Your task to perform on an android device: turn on sleep mode Image 0: 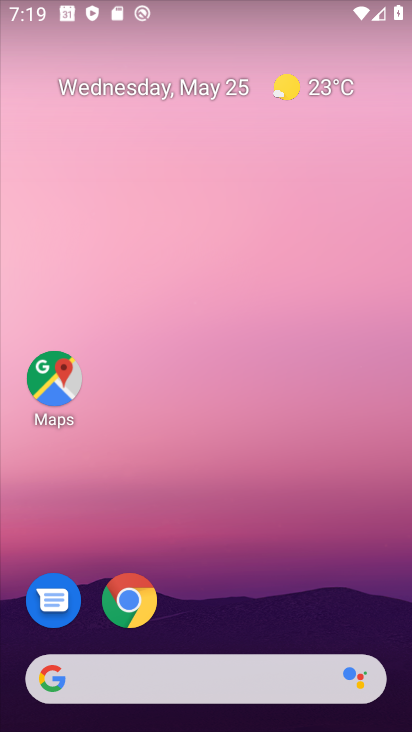
Step 0: drag from (272, 600) to (254, 205)
Your task to perform on an android device: turn on sleep mode Image 1: 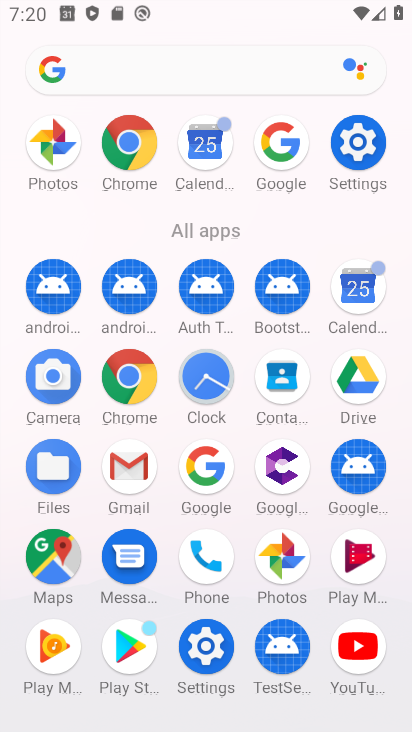
Step 1: click (355, 143)
Your task to perform on an android device: turn on sleep mode Image 2: 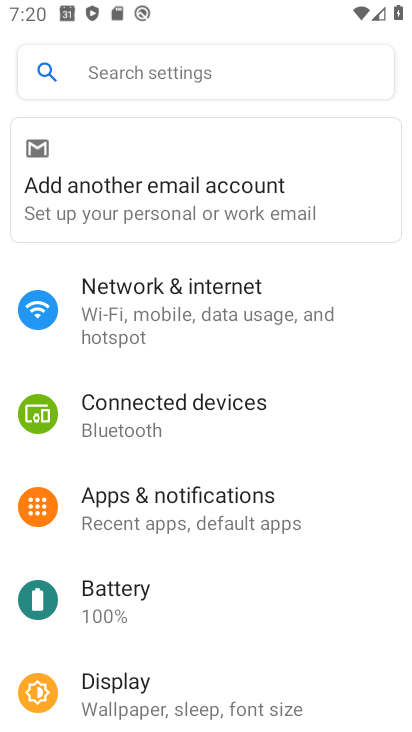
Step 2: drag from (183, 573) to (226, 432)
Your task to perform on an android device: turn on sleep mode Image 3: 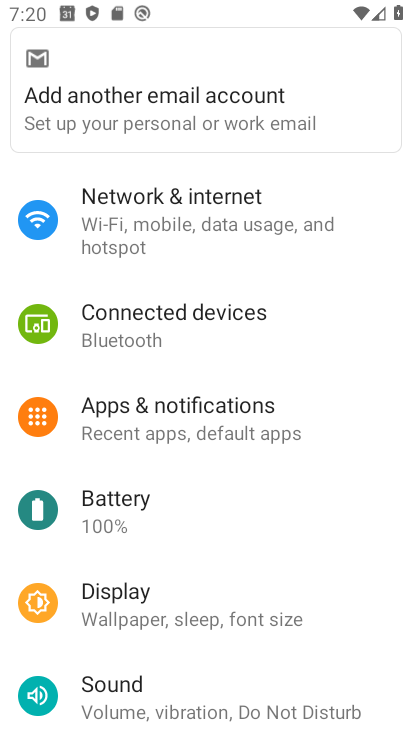
Step 3: click (213, 618)
Your task to perform on an android device: turn on sleep mode Image 4: 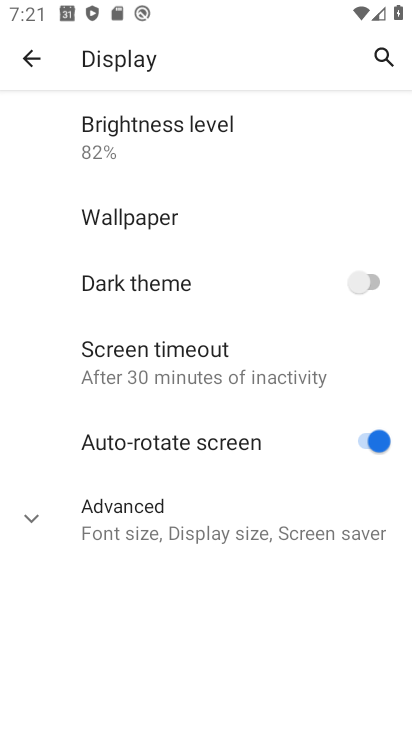
Step 4: click (130, 509)
Your task to perform on an android device: turn on sleep mode Image 5: 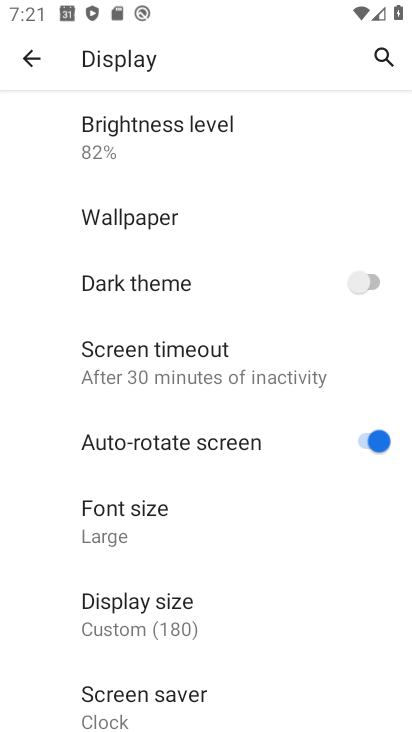
Step 5: drag from (157, 556) to (183, 461)
Your task to perform on an android device: turn on sleep mode Image 6: 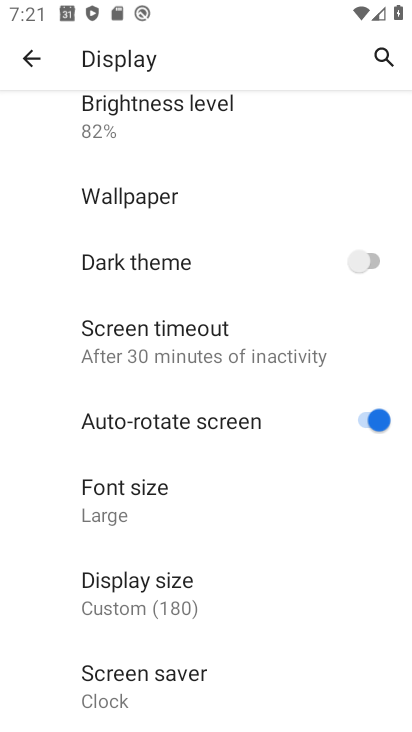
Step 6: drag from (155, 605) to (195, 519)
Your task to perform on an android device: turn on sleep mode Image 7: 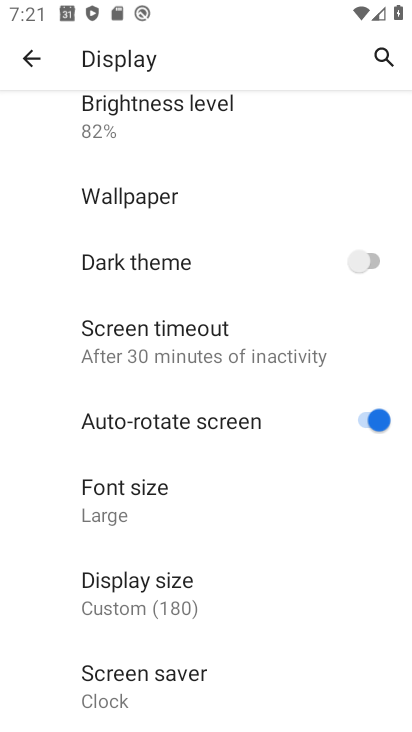
Step 7: click (213, 361)
Your task to perform on an android device: turn on sleep mode Image 8: 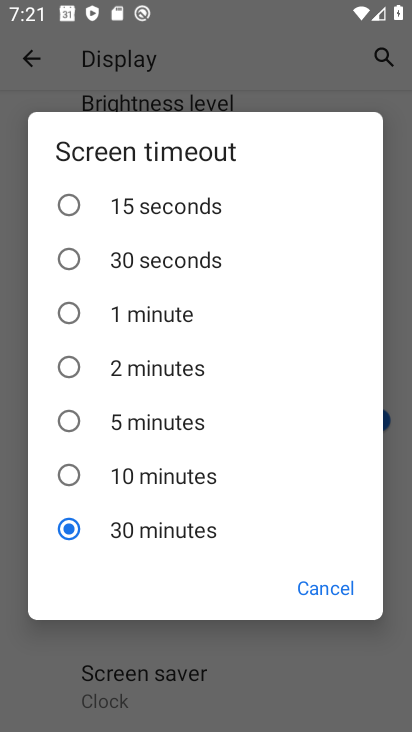
Step 8: drag from (213, 373) to (215, 443)
Your task to perform on an android device: turn on sleep mode Image 9: 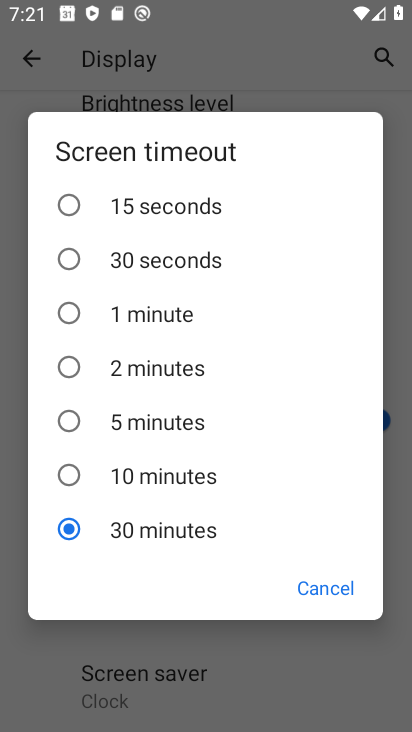
Step 9: click (318, 597)
Your task to perform on an android device: turn on sleep mode Image 10: 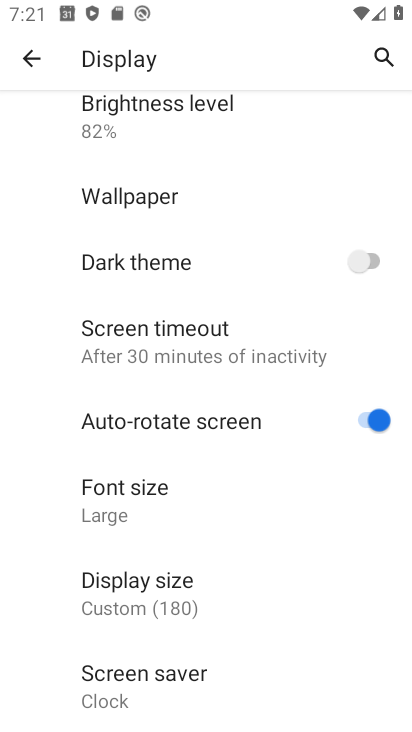
Step 10: task complete